Your task to perform on an android device: Open CNN.com Image 0: 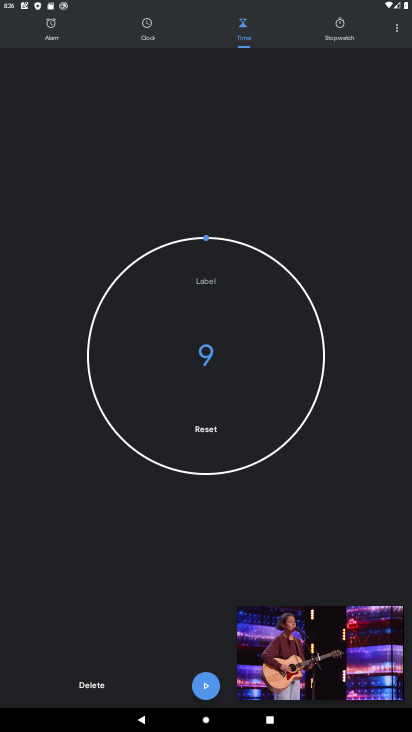
Step 0: drag from (373, 647) to (411, 701)
Your task to perform on an android device: Open CNN.com Image 1: 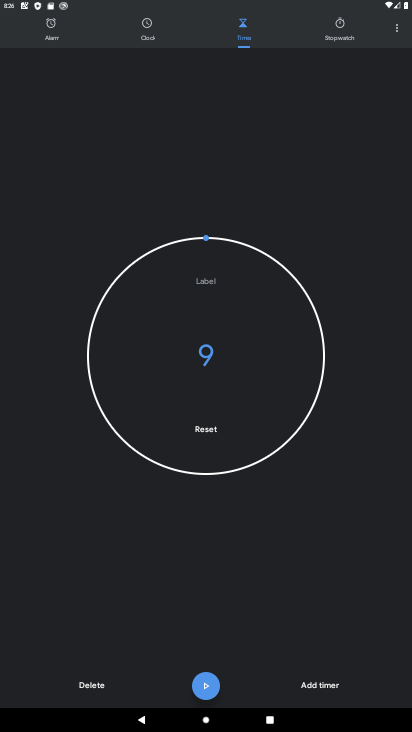
Step 1: press home button
Your task to perform on an android device: Open CNN.com Image 2: 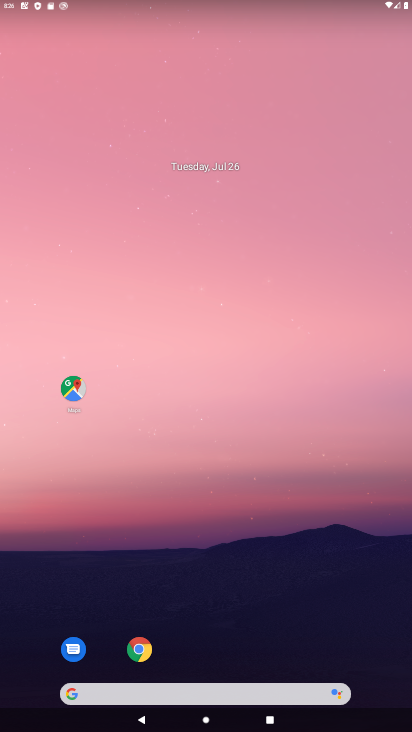
Step 2: click (138, 644)
Your task to perform on an android device: Open CNN.com Image 3: 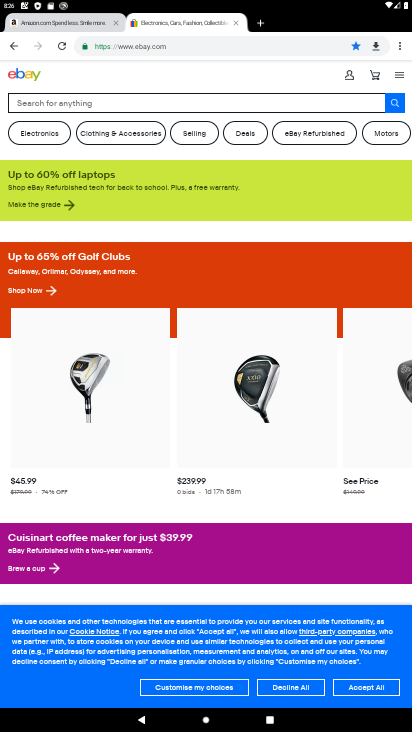
Step 3: click (259, 22)
Your task to perform on an android device: Open CNN.com Image 4: 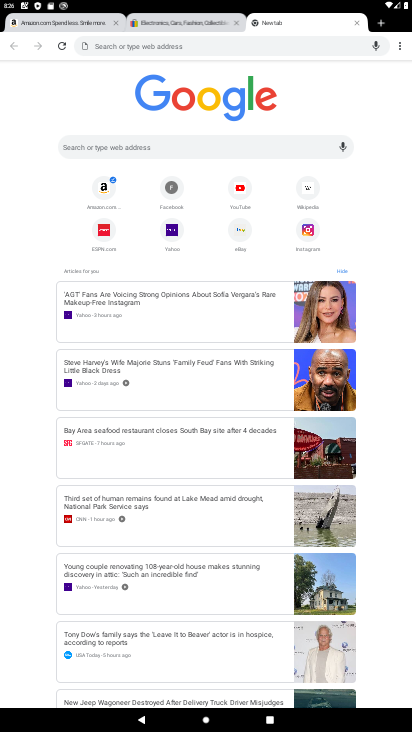
Step 4: click (94, 505)
Your task to perform on an android device: Open CNN.com Image 5: 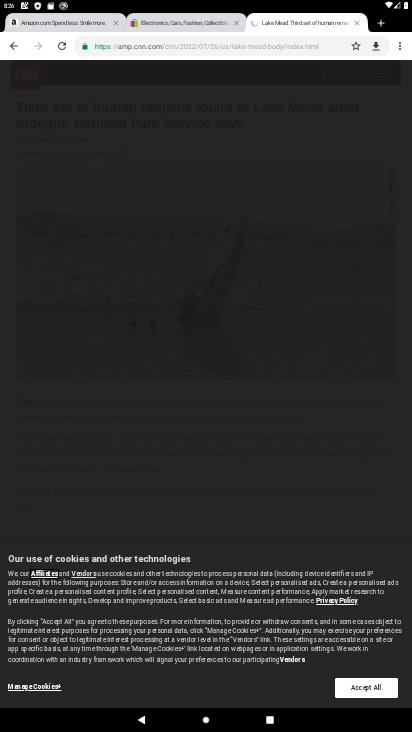
Step 5: task complete